Your task to perform on an android device: turn pop-ups on in chrome Image 0: 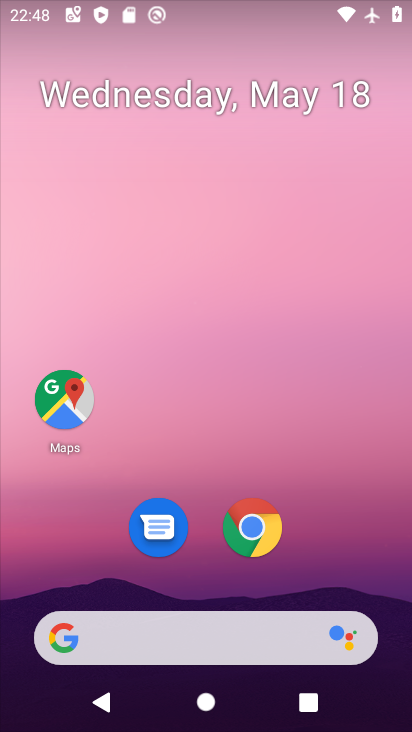
Step 0: click (241, 517)
Your task to perform on an android device: turn pop-ups on in chrome Image 1: 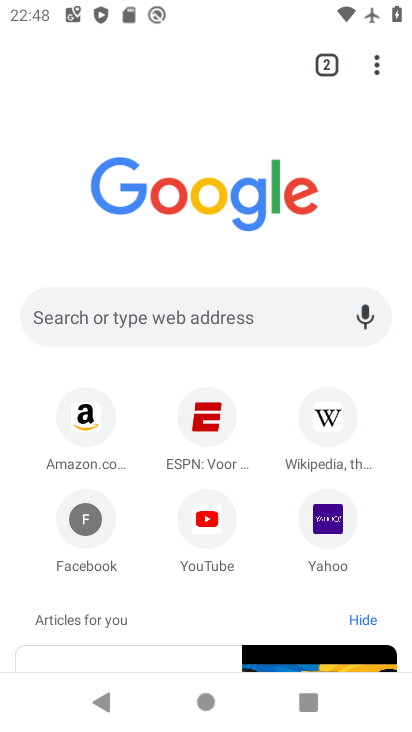
Step 1: click (378, 76)
Your task to perform on an android device: turn pop-ups on in chrome Image 2: 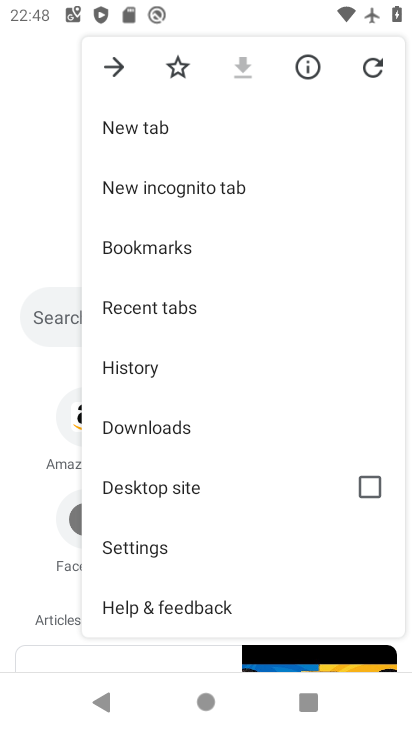
Step 2: click (222, 547)
Your task to perform on an android device: turn pop-ups on in chrome Image 3: 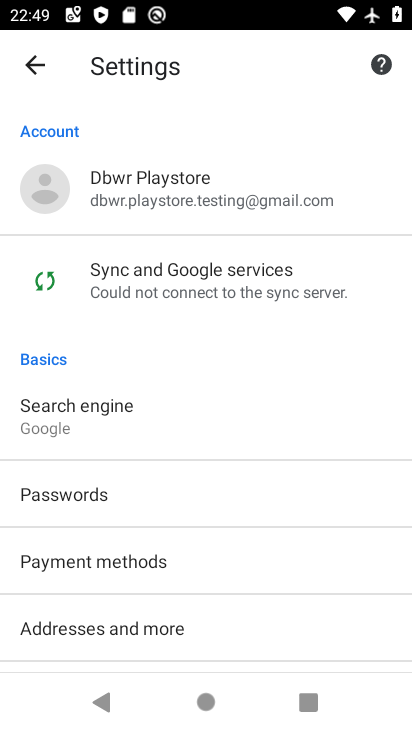
Step 3: drag from (236, 641) to (225, 596)
Your task to perform on an android device: turn pop-ups on in chrome Image 4: 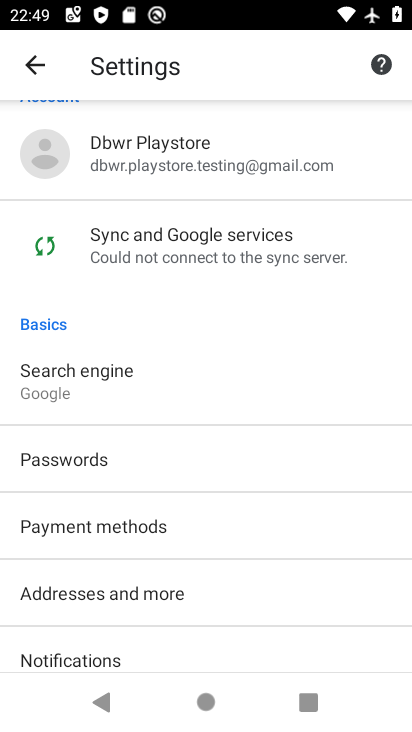
Step 4: drag from (205, 662) to (182, 463)
Your task to perform on an android device: turn pop-ups on in chrome Image 5: 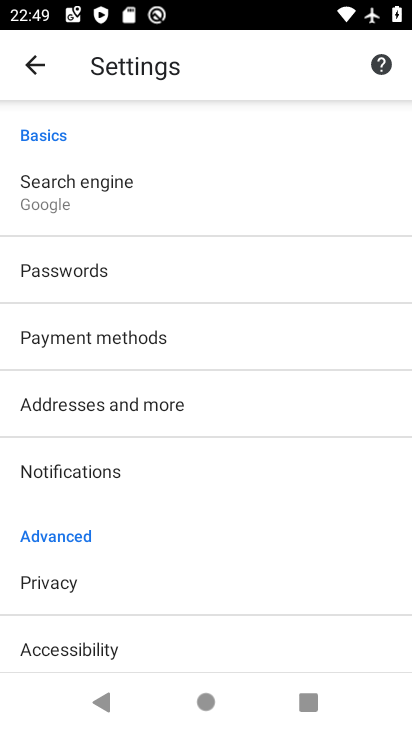
Step 5: drag from (200, 523) to (176, 410)
Your task to perform on an android device: turn pop-ups on in chrome Image 6: 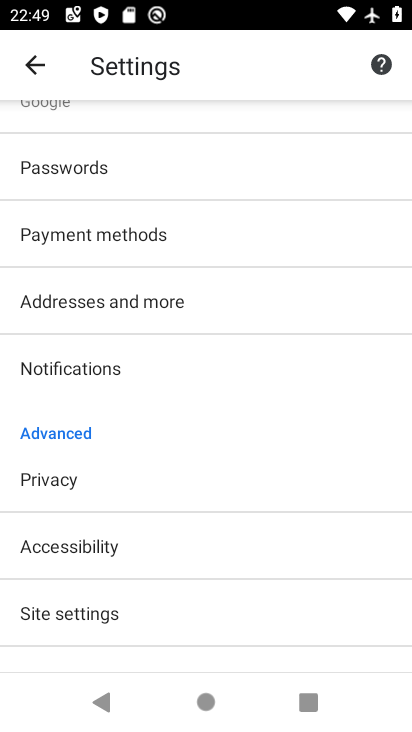
Step 6: click (181, 600)
Your task to perform on an android device: turn pop-ups on in chrome Image 7: 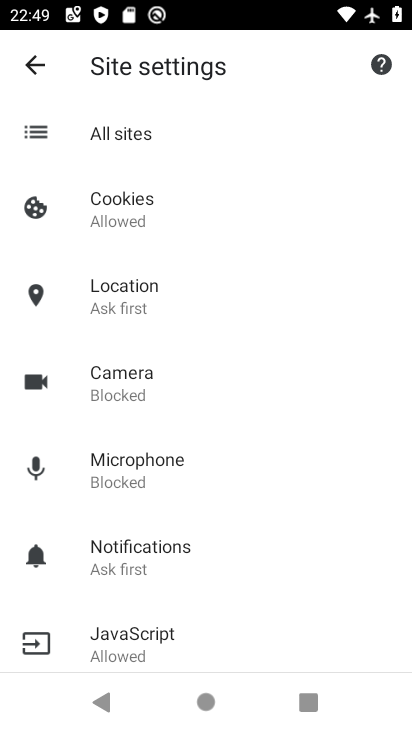
Step 7: drag from (191, 590) to (176, 440)
Your task to perform on an android device: turn pop-ups on in chrome Image 8: 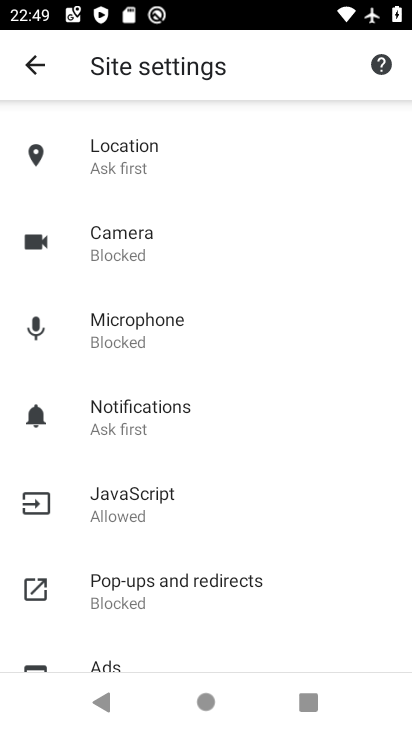
Step 8: click (149, 583)
Your task to perform on an android device: turn pop-ups on in chrome Image 9: 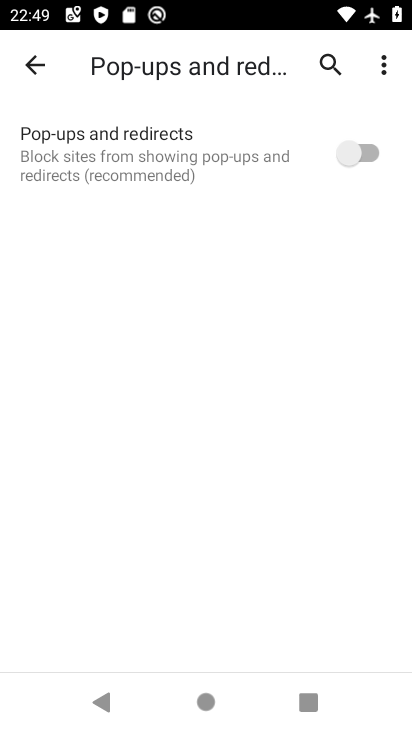
Step 9: click (356, 136)
Your task to perform on an android device: turn pop-ups on in chrome Image 10: 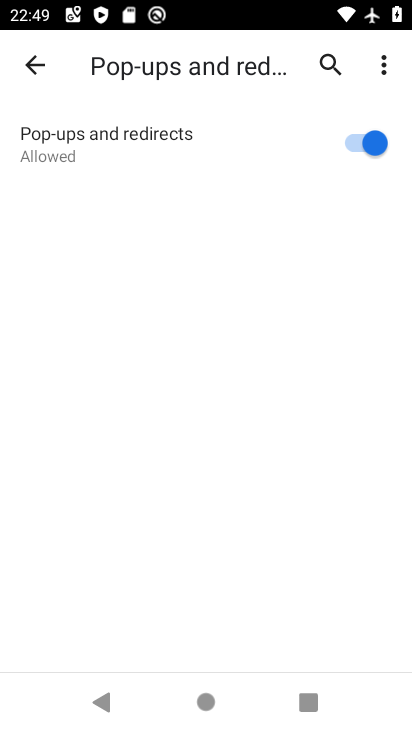
Step 10: task complete